Your task to perform on an android device: clear all cookies in the chrome app Image 0: 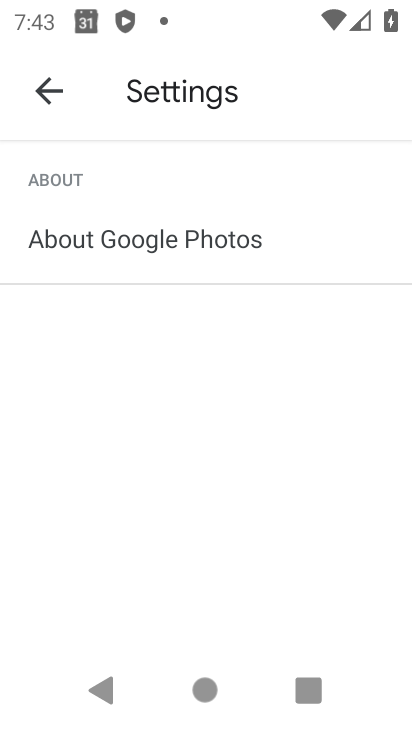
Step 0: press home button
Your task to perform on an android device: clear all cookies in the chrome app Image 1: 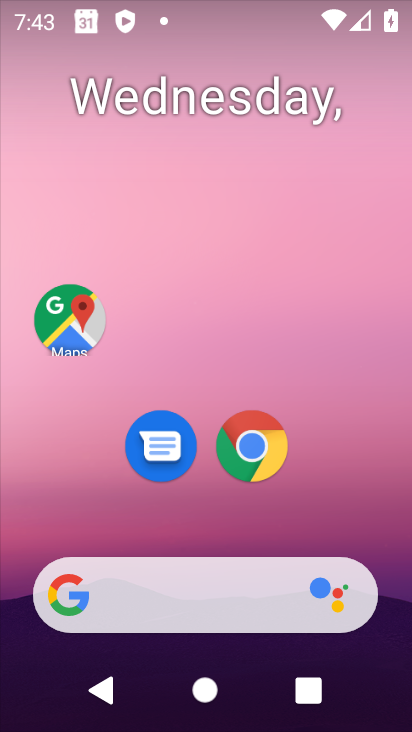
Step 1: drag from (350, 529) to (367, 26)
Your task to perform on an android device: clear all cookies in the chrome app Image 2: 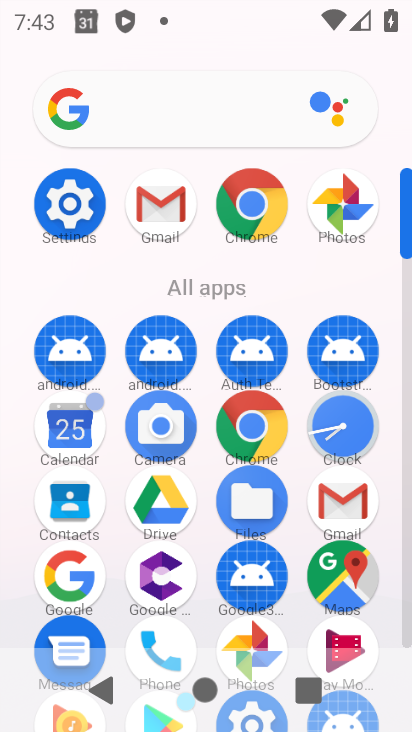
Step 2: click (258, 211)
Your task to perform on an android device: clear all cookies in the chrome app Image 3: 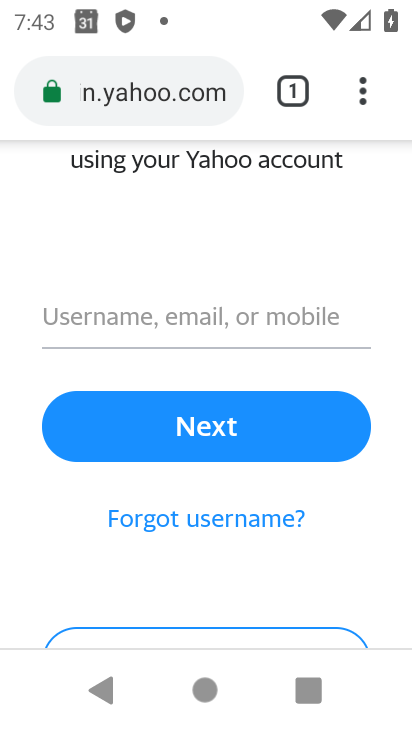
Step 3: drag from (344, 98) to (155, 240)
Your task to perform on an android device: clear all cookies in the chrome app Image 4: 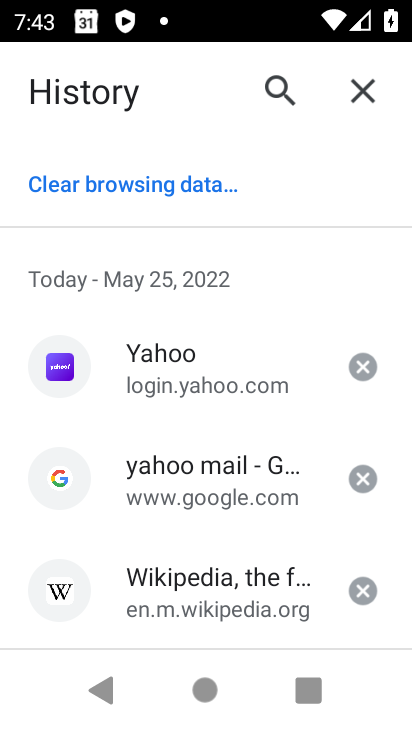
Step 4: click (116, 196)
Your task to perform on an android device: clear all cookies in the chrome app Image 5: 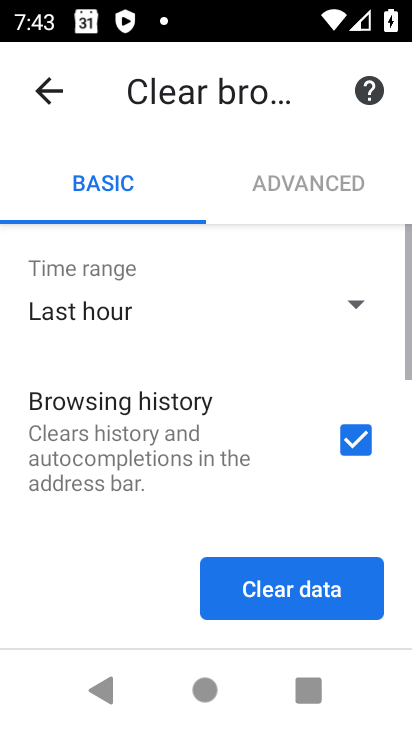
Step 5: drag from (127, 492) to (176, 203)
Your task to perform on an android device: clear all cookies in the chrome app Image 6: 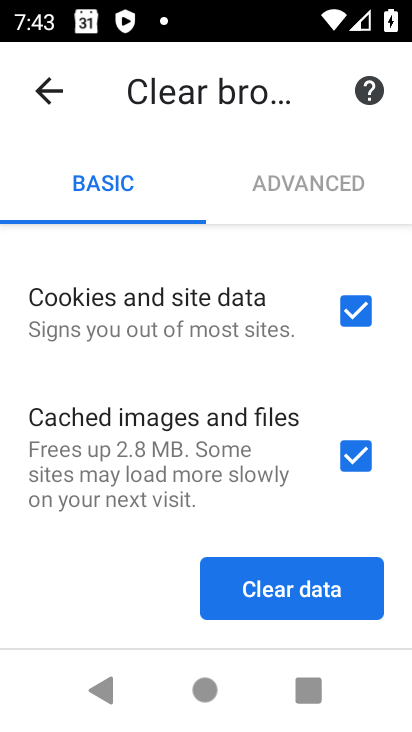
Step 6: click (347, 453)
Your task to perform on an android device: clear all cookies in the chrome app Image 7: 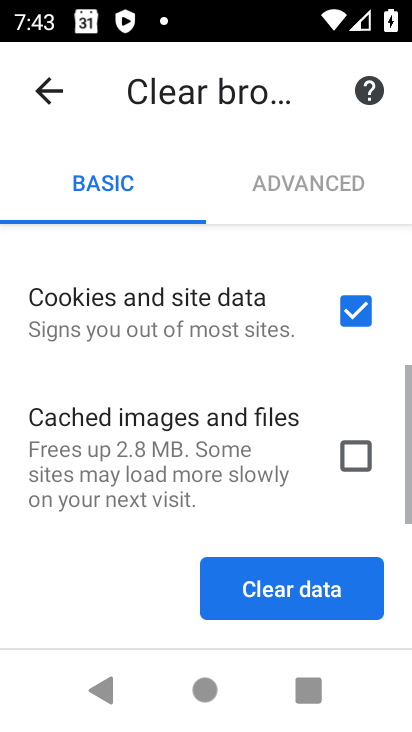
Step 7: drag from (194, 383) to (194, 556)
Your task to perform on an android device: clear all cookies in the chrome app Image 8: 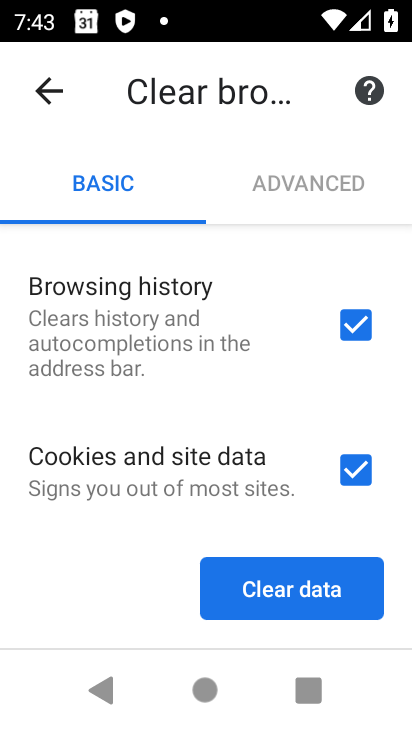
Step 8: click (346, 332)
Your task to perform on an android device: clear all cookies in the chrome app Image 9: 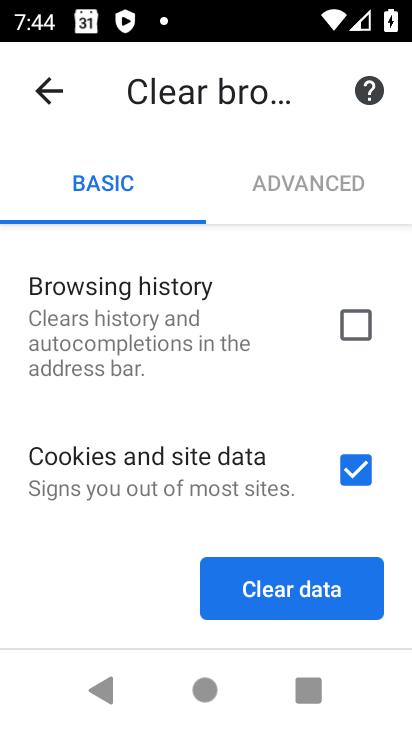
Step 9: click (316, 579)
Your task to perform on an android device: clear all cookies in the chrome app Image 10: 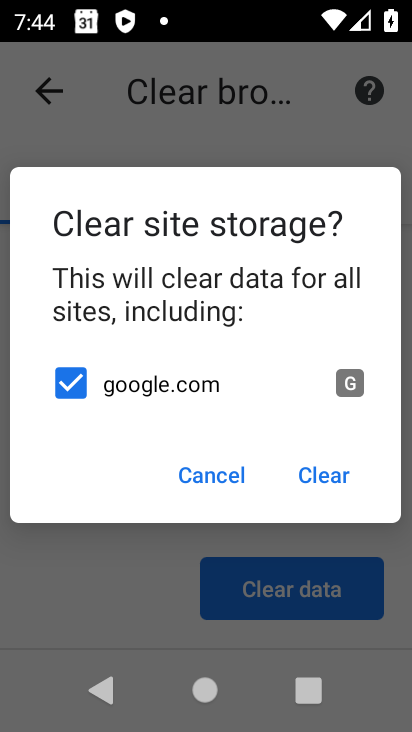
Step 10: click (305, 477)
Your task to perform on an android device: clear all cookies in the chrome app Image 11: 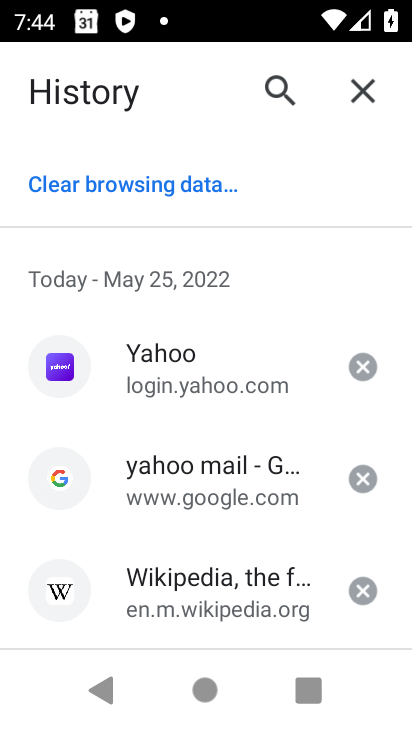
Step 11: task complete